Your task to perform on an android device: Show the shopping cart on amazon. Search for "razer deathadder" on amazon, select the first entry, and add it to the cart. Image 0: 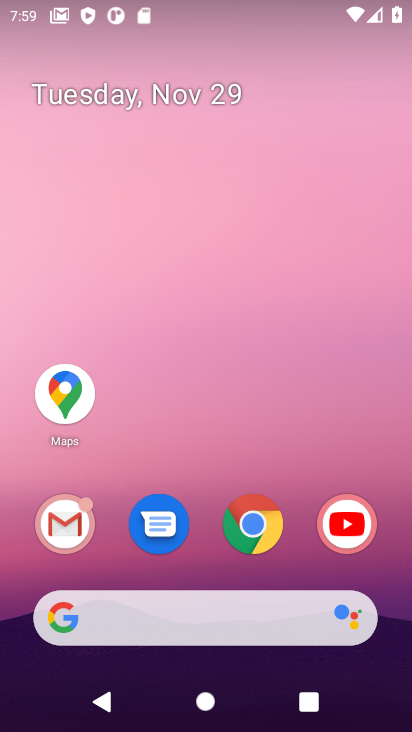
Step 0: click (254, 533)
Your task to perform on an android device: Show the shopping cart on amazon. Search for "razer deathadder" on amazon, select the first entry, and add it to the cart. Image 1: 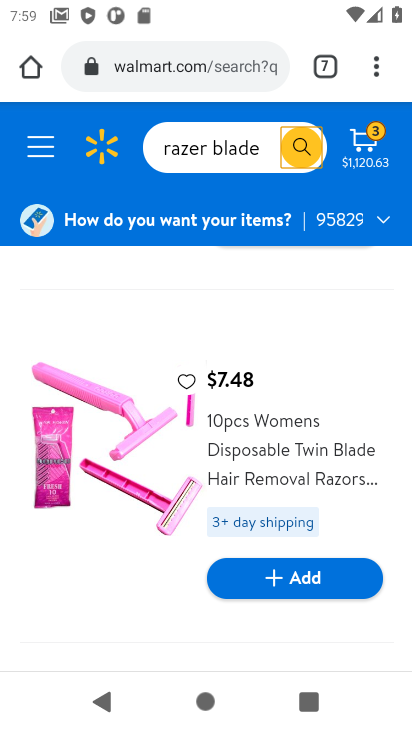
Step 1: click (173, 73)
Your task to perform on an android device: Show the shopping cart on amazon. Search for "razer deathadder" on amazon, select the first entry, and add it to the cart. Image 2: 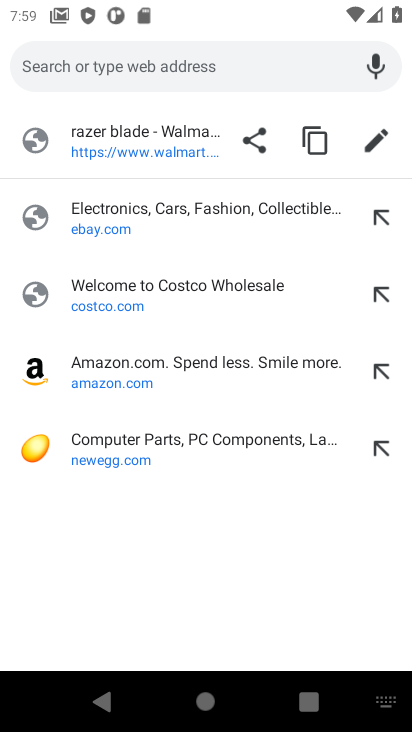
Step 2: click (83, 371)
Your task to perform on an android device: Show the shopping cart on amazon. Search for "razer deathadder" on amazon, select the first entry, and add it to the cart. Image 3: 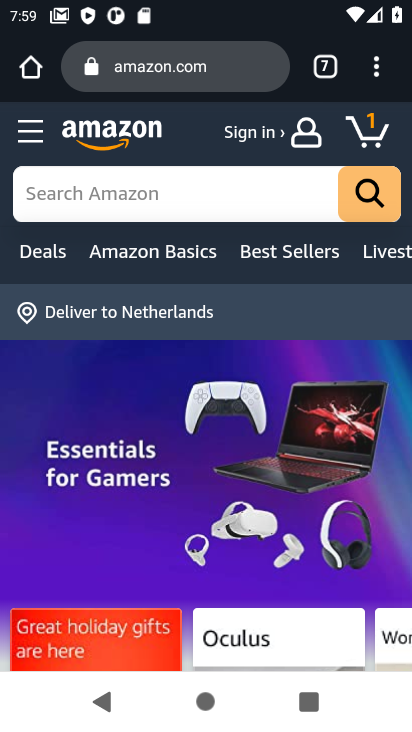
Step 3: click (373, 128)
Your task to perform on an android device: Show the shopping cart on amazon. Search for "razer deathadder" on amazon, select the first entry, and add it to the cart. Image 4: 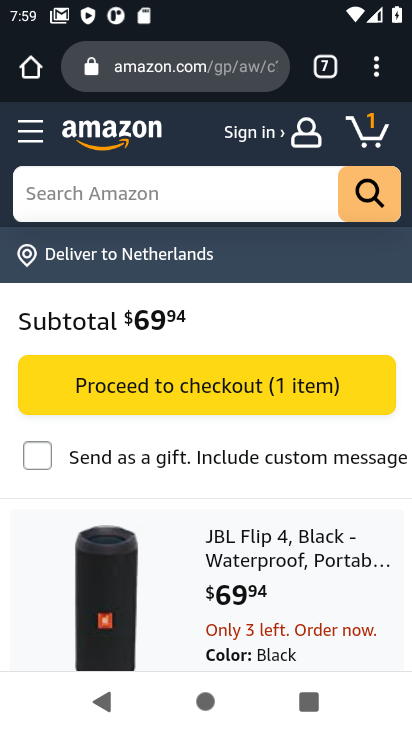
Step 4: click (116, 204)
Your task to perform on an android device: Show the shopping cart on amazon. Search for "razer deathadder" on amazon, select the first entry, and add it to the cart. Image 5: 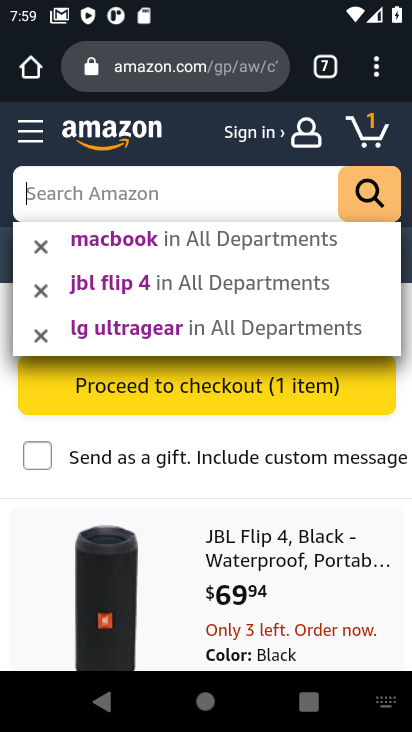
Step 5: type "razer deathadder"
Your task to perform on an android device: Show the shopping cart on amazon. Search for "razer deathadder" on amazon, select the first entry, and add it to the cart. Image 6: 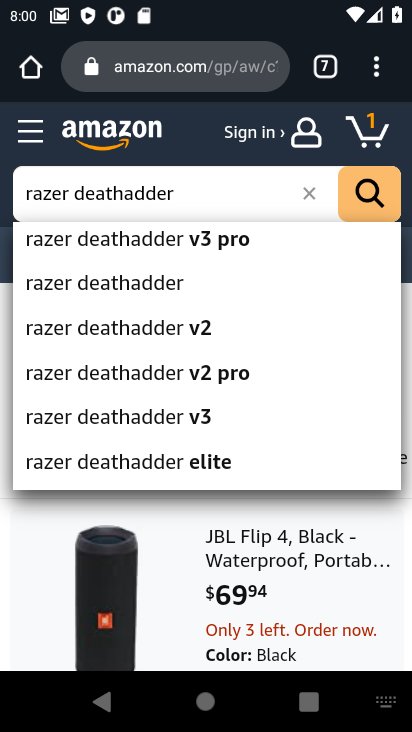
Step 6: click (158, 282)
Your task to perform on an android device: Show the shopping cart on amazon. Search for "razer deathadder" on amazon, select the first entry, and add it to the cart. Image 7: 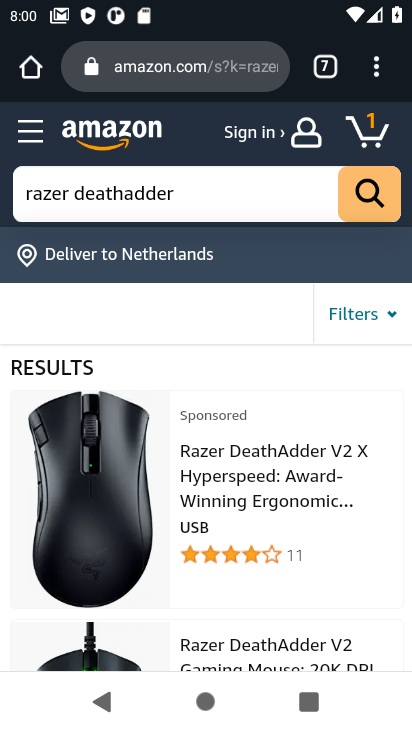
Step 7: drag from (320, 578) to (325, 422)
Your task to perform on an android device: Show the shopping cart on amazon. Search for "razer deathadder" on amazon, select the first entry, and add it to the cart. Image 8: 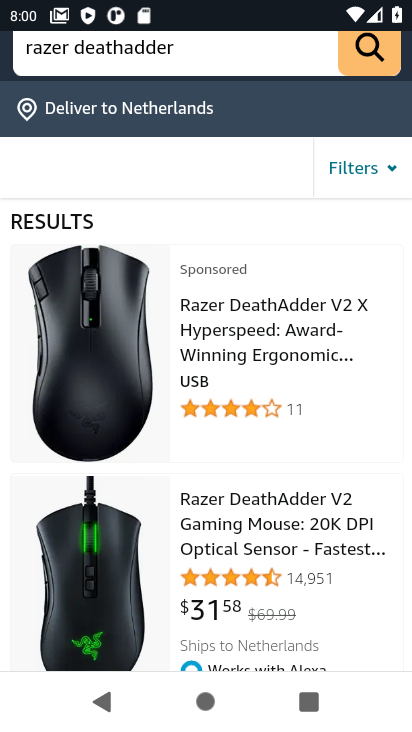
Step 8: click (206, 344)
Your task to perform on an android device: Show the shopping cart on amazon. Search for "razer deathadder" on amazon, select the first entry, and add it to the cart. Image 9: 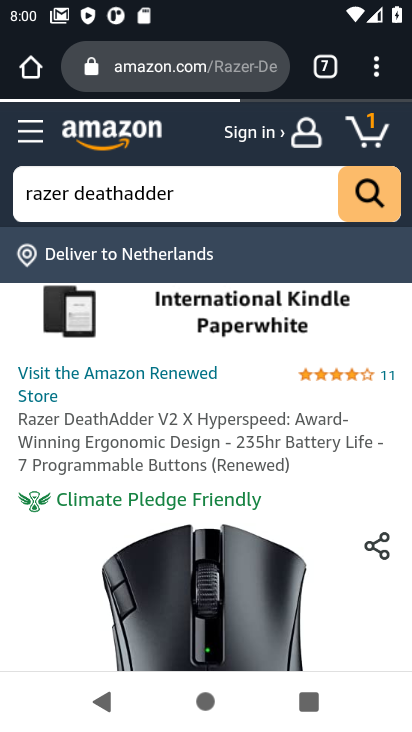
Step 9: task complete